Your task to perform on an android device: Open wifi settings Image 0: 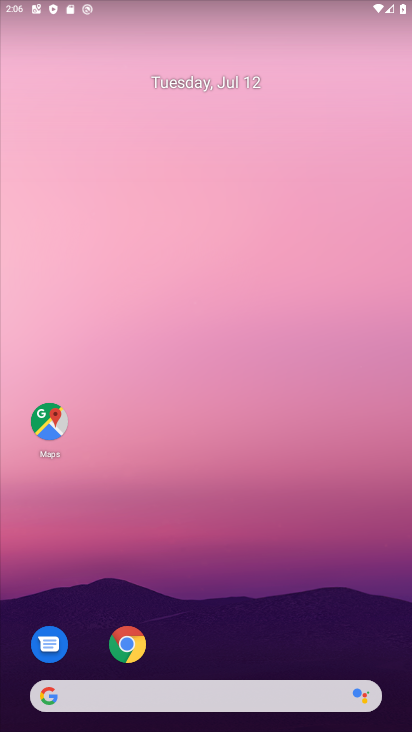
Step 0: drag from (244, 675) to (174, 60)
Your task to perform on an android device: Open wifi settings Image 1: 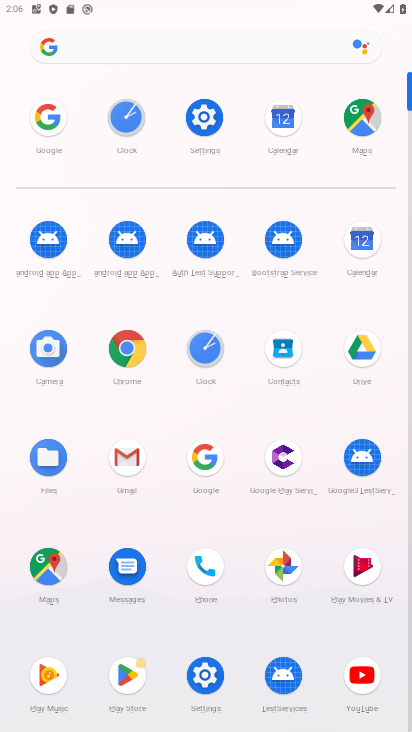
Step 1: click (200, 116)
Your task to perform on an android device: Open wifi settings Image 2: 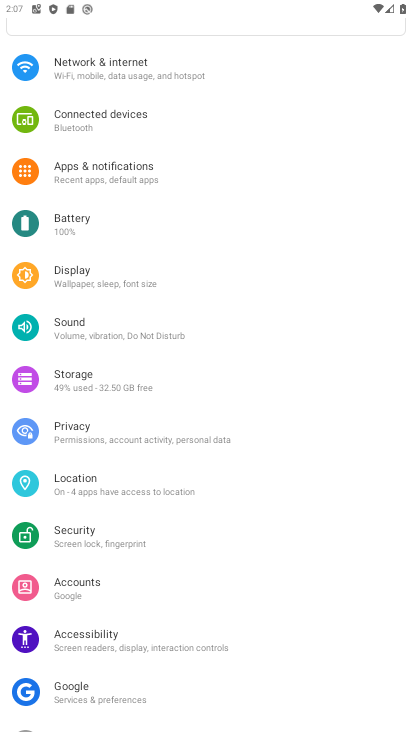
Step 2: click (84, 72)
Your task to perform on an android device: Open wifi settings Image 3: 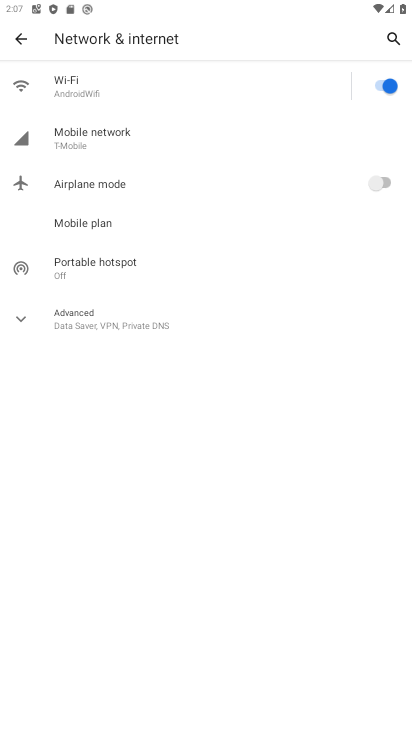
Step 3: click (91, 101)
Your task to perform on an android device: Open wifi settings Image 4: 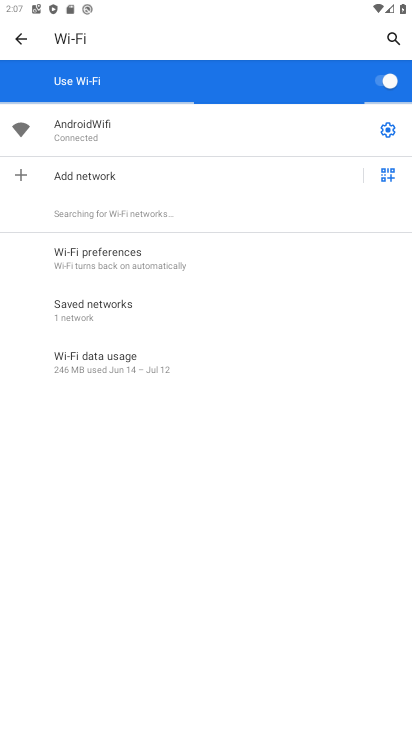
Step 4: task complete